Your task to perform on an android device: Go to Maps Image 0: 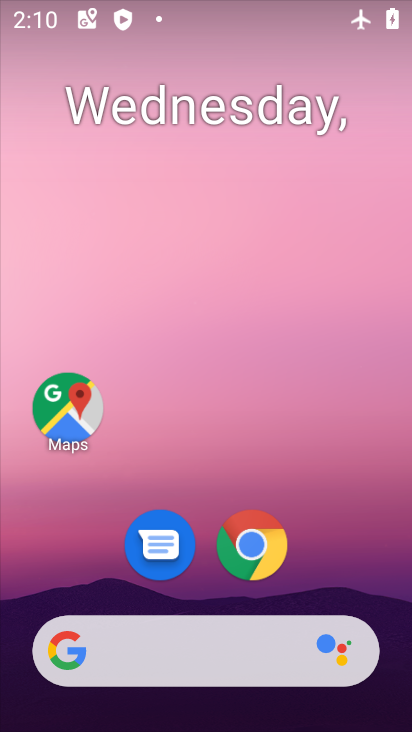
Step 0: click (74, 412)
Your task to perform on an android device: Go to Maps Image 1: 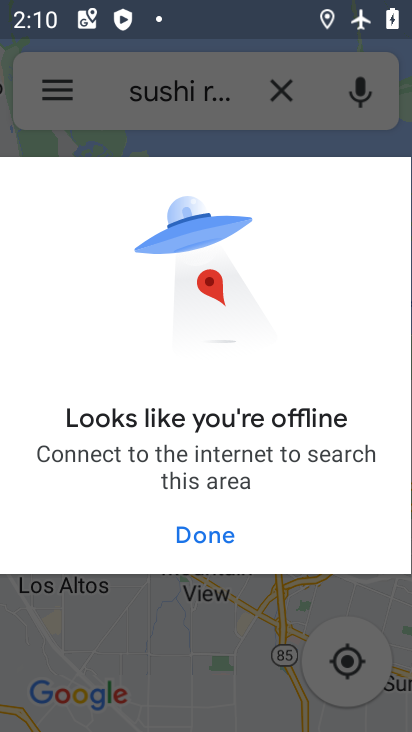
Step 1: task complete